Your task to perform on an android device: open app "Pandora - Music & Podcasts" (install if not already installed) and enter user name: "creator@yahoo.com" and password: "valuable" Image 0: 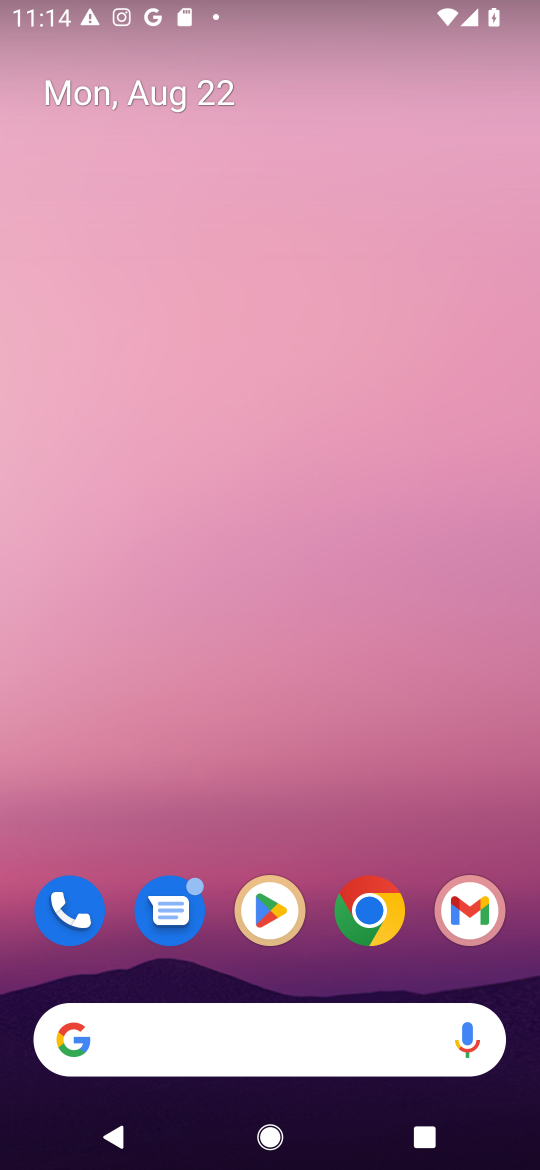
Step 0: click (282, 905)
Your task to perform on an android device: open app "Pandora - Music & Podcasts" (install if not already installed) and enter user name: "creator@yahoo.com" and password: "valuable" Image 1: 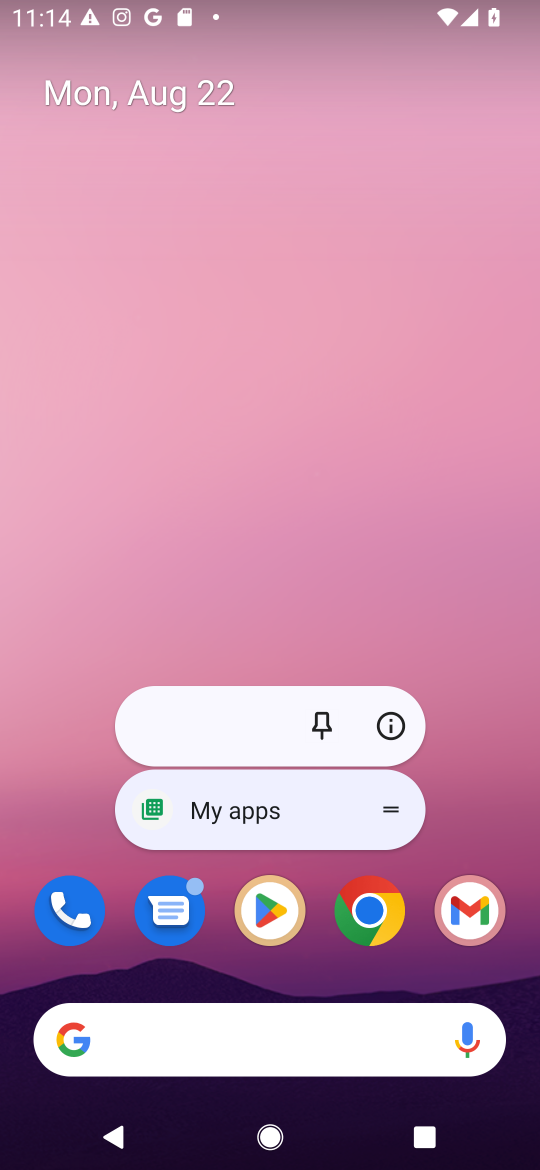
Step 1: click (290, 899)
Your task to perform on an android device: open app "Pandora - Music & Podcasts" (install if not already installed) and enter user name: "creator@yahoo.com" and password: "valuable" Image 2: 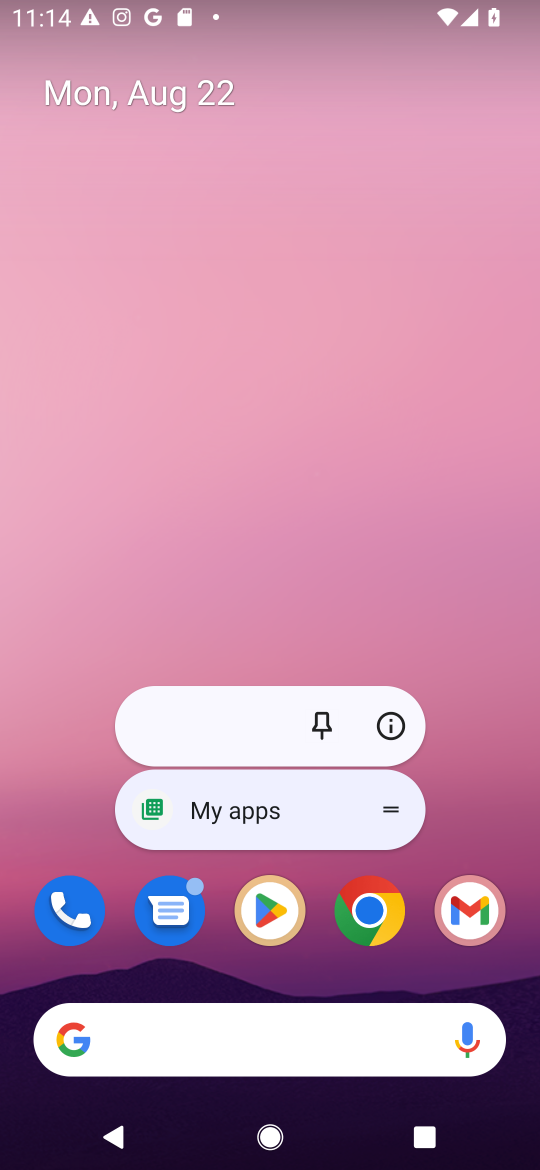
Step 2: click (262, 903)
Your task to perform on an android device: open app "Pandora - Music & Podcasts" (install if not already installed) and enter user name: "creator@yahoo.com" and password: "valuable" Image 3: 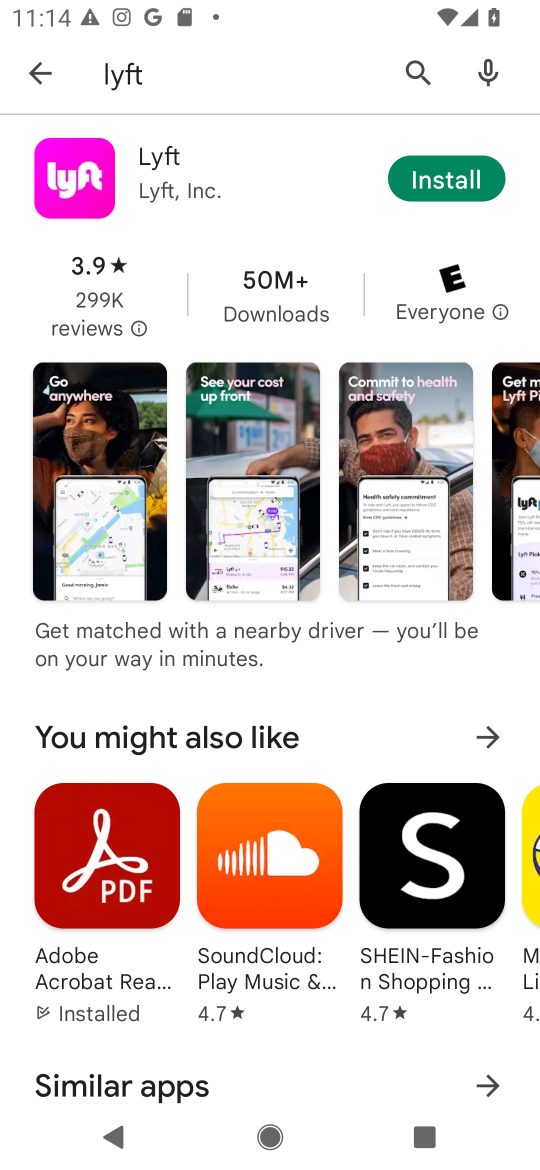
Step 3: click (394, 54)
Your task to perform on an android device: open app "Pandora - Music & Podcasts" (install if not already installed) and enter user name: "creator@yahoo.com" and password: "valuable" Image 4: 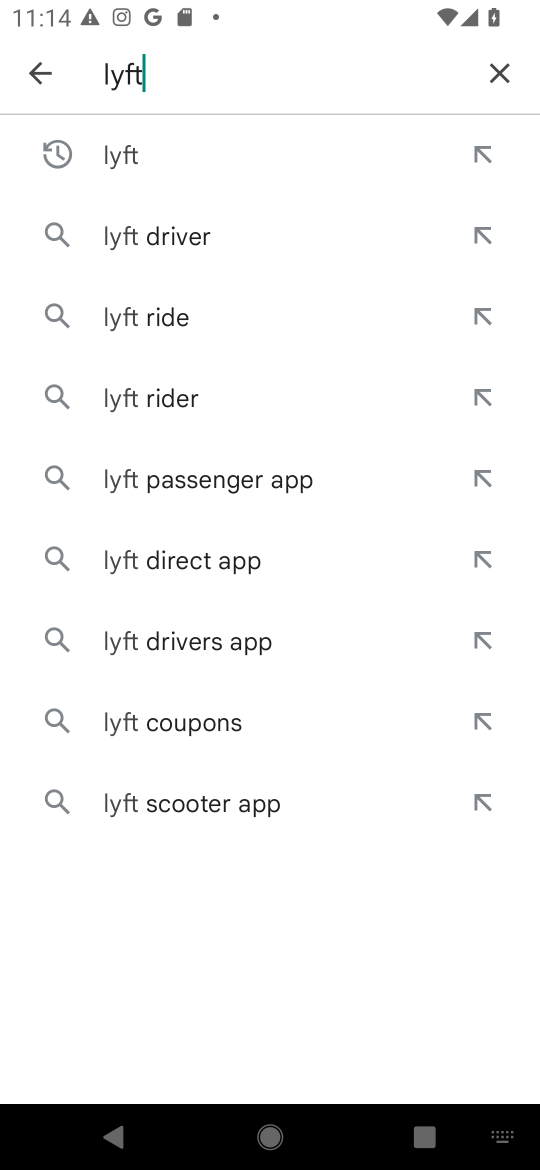
Step 4: click (480, 73)
Your task to perform on an android device: open app "Pandora - Music & Podcasts" (install if not already installed) and enter user name: "creator@yahoo.com" and password: "valuable" Image 5: 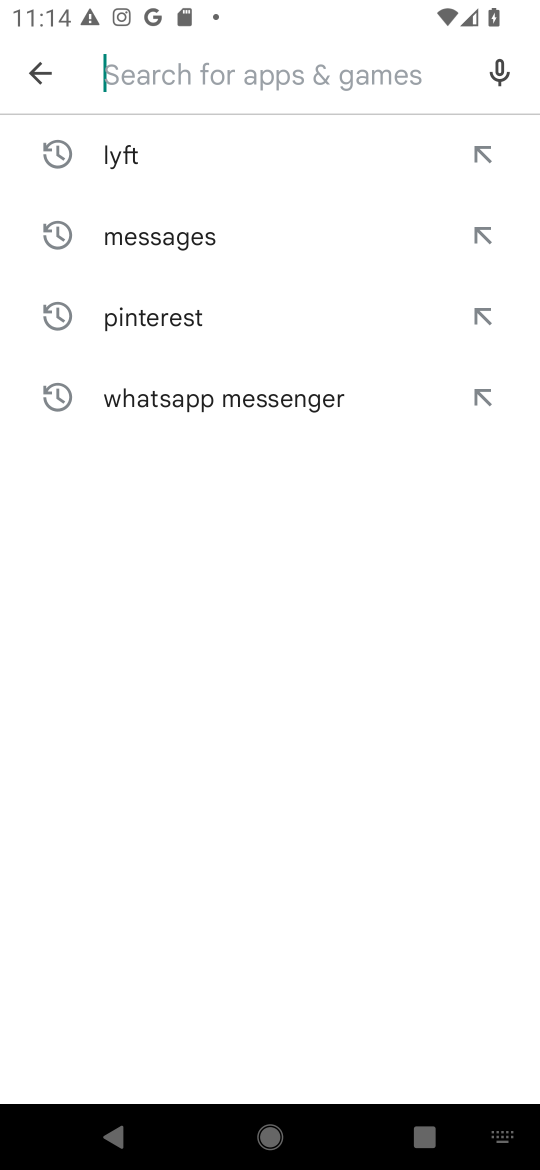
Step 5: type "Pandora - Music & Podcasts"
Your task to perform on an android device: open app "Pandora - Music & Podcasts" (install if not already installed) and enter user name: "creator@yahoo.com" and password: "valuable" Image 6: 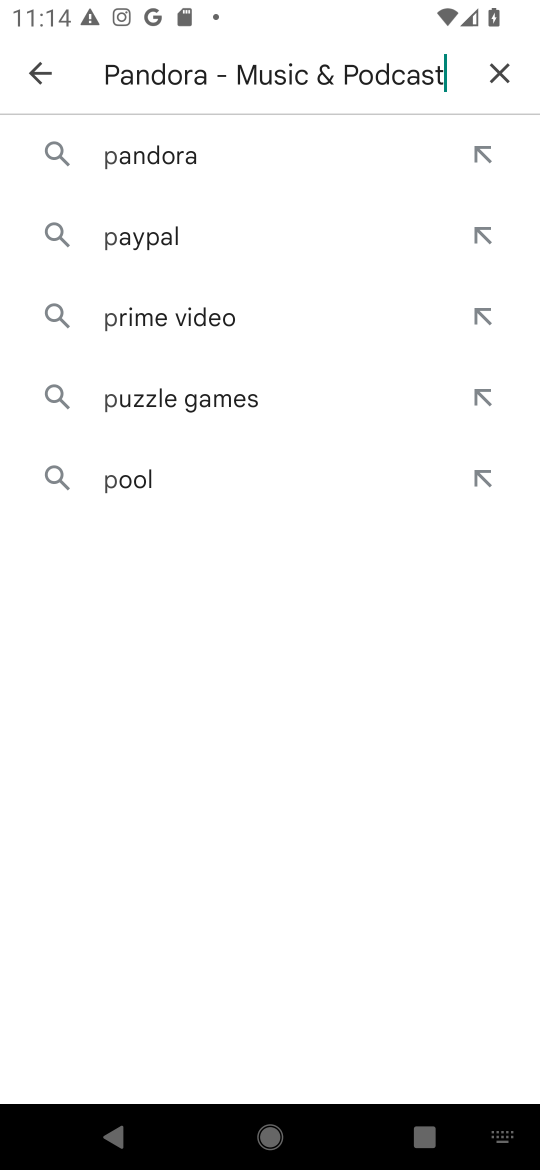
Step 6: type ""
Your task to perform on an android device: open app "Pandora - Music & Podcasts" (install if not already installed) and enter user name: "creator@yahoo.com" and password: "valuable" Image 7: 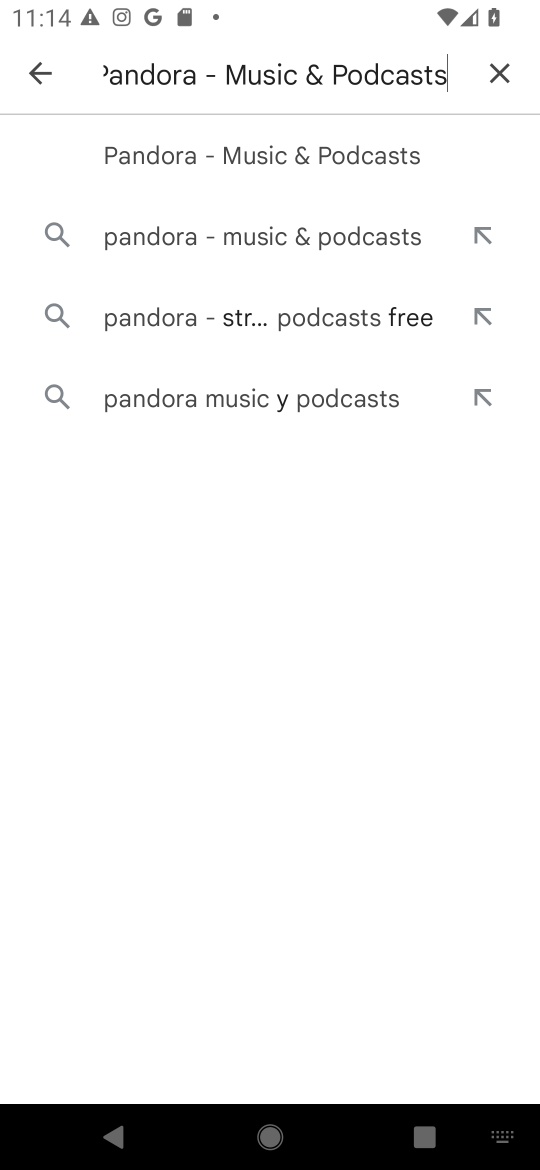
Step 7: click (262, 144)
Your task to perform on an android device: open app "Pandora - Music & Podcasts" (install if not already installed) and enter user name: "creator@yahoo.com" and password: "valuable" Image 8: 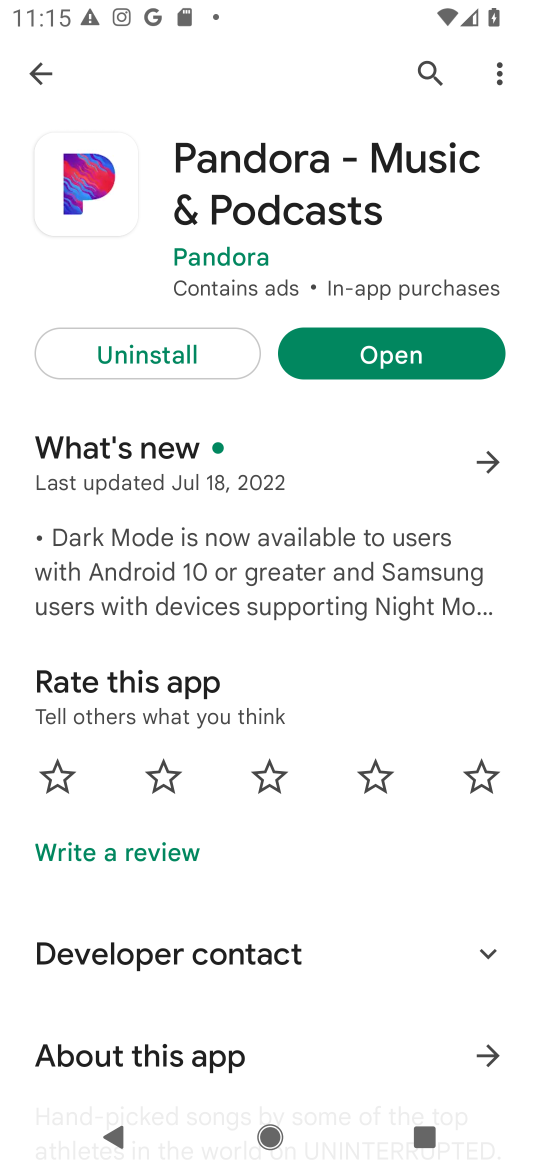
Step 8: click (409, 345)
Your task to perform on an android device: open app "Pandora - Music & Podcasts" (install if not already installed) and enter user name: "creator@yahoo.com" and password: "valuable" Image 9: 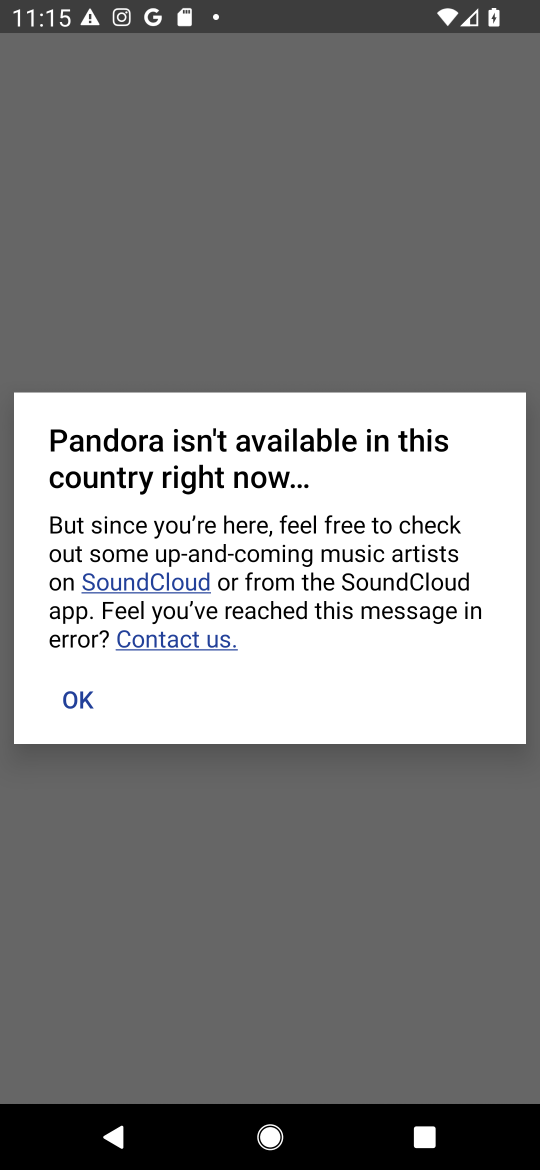
Step 9: task complete